Your task to perform on an android device: open a bookmark in the chrome app Image 0: 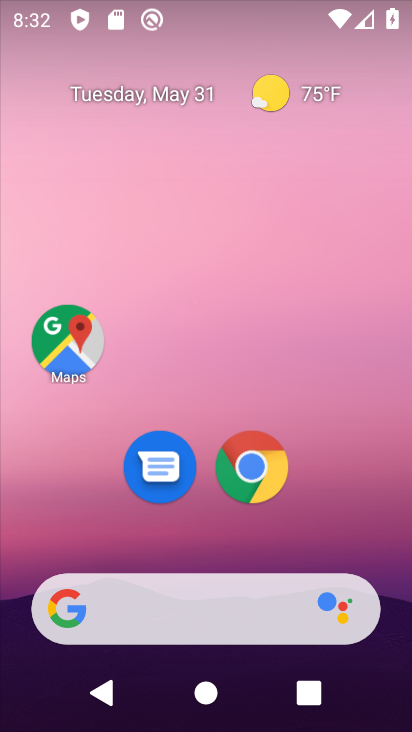
Step 0: drag from (198, 514) to (227, 161)
Your task to perform on an android device: open a bookmark in the chrome app Image 1: 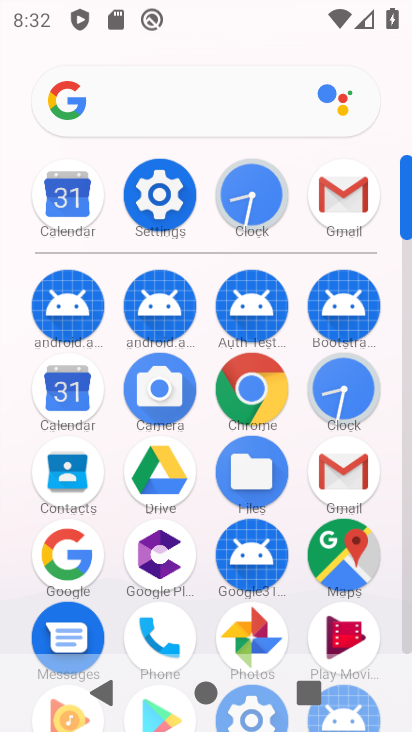
Step 1: click (248, 382)
Your task to perform on an android device: open a bookmark in the chrome app Image 2: 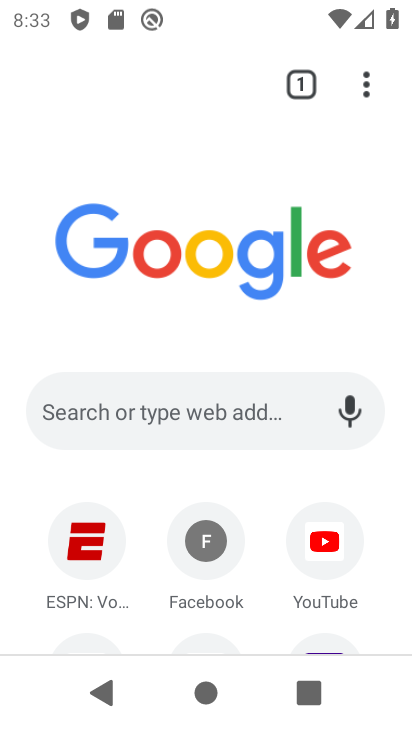
Step 2: task complete